Your task to perform on an android device: Go to display settings Image 0: 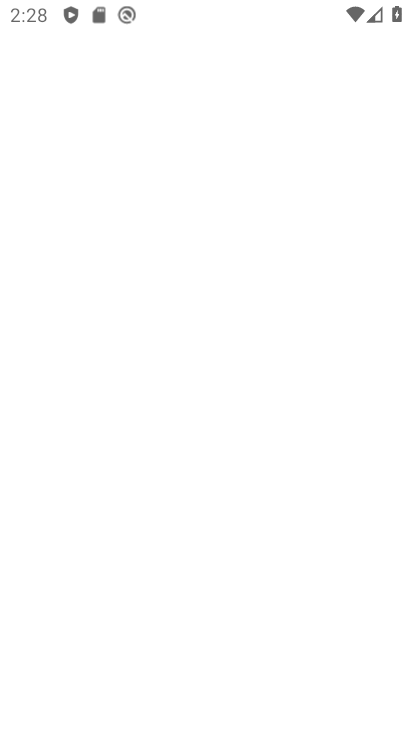
Step 0: press home button
Your task to perform on an android device: Go to display settings Image 1: 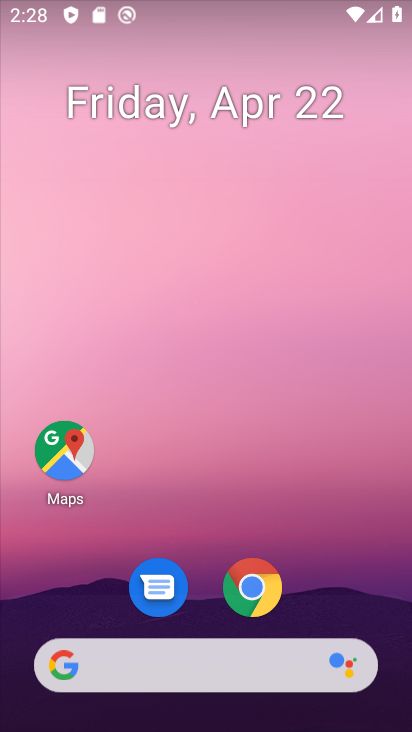
Step 1: drag from (200, 604) to (204, 143)
Your task to perform on an android device: Go to display settings Image 2: 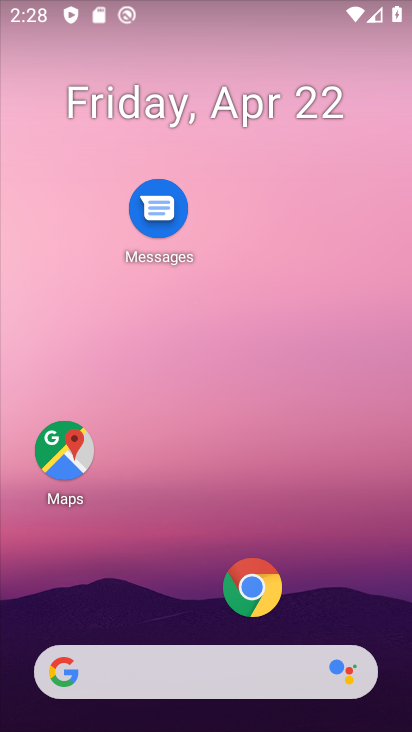
Step 2: drag from (194, 565) to (225, 166)
Your task to perform on an android device: Go to display settings Image 3: 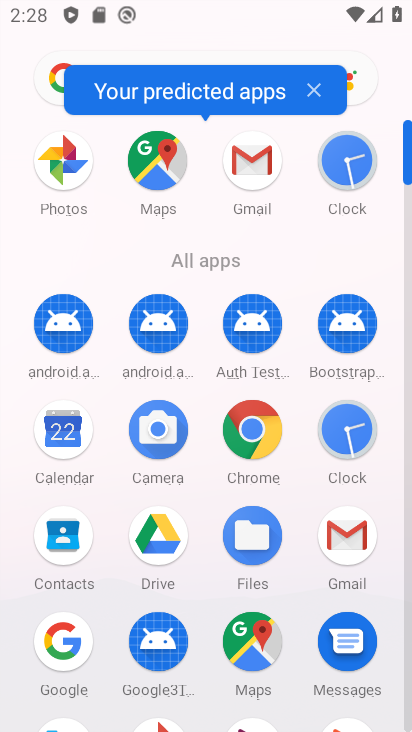
Step 3: drag from (206, 537) to (216, 218)
Your task to perform on an android device: Go to display settings Image 4: 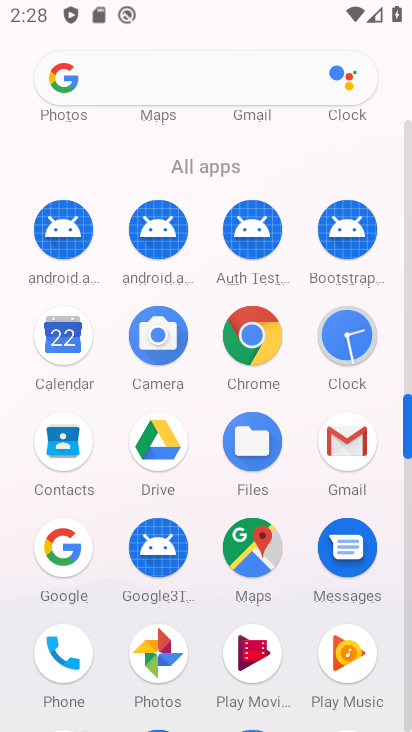
Step 4: drag from (206, 553) to (214, 183)
Your task to perform on an android device: Go to display settings Image 5: 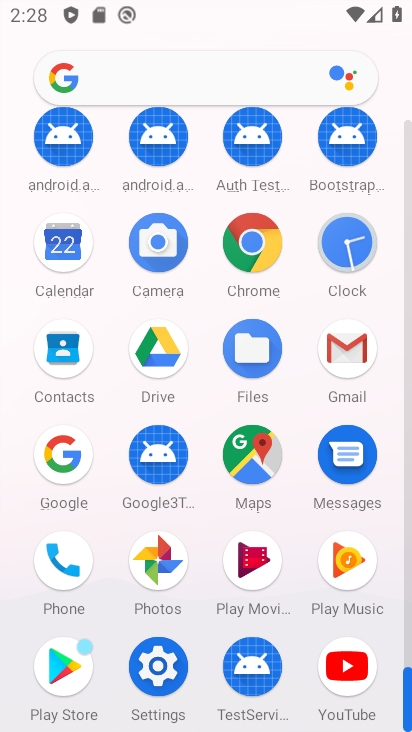
Step 5: click (174, 650)
Your task to perform on an android device: Go to display settings Image 6: 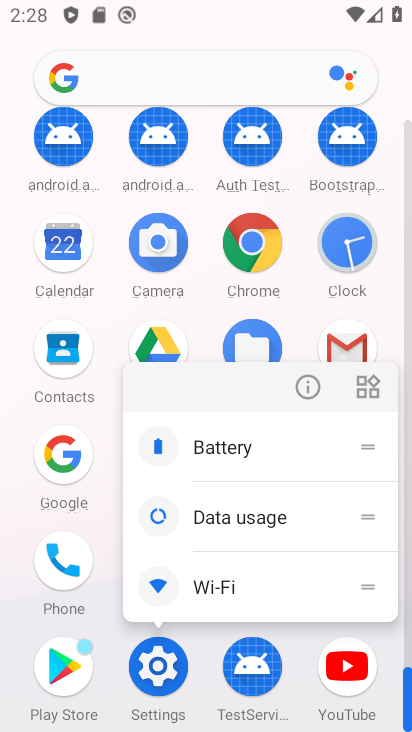
Step 6: click (169, 655)
Your task to perform on an android device: Go to display settings Image 7: 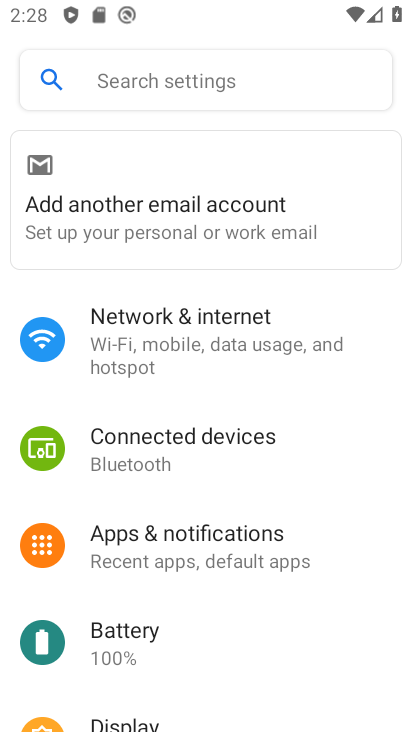
Step 7: drag from (219, 601) to (227, 287)
Your task to perform on an android device: Go to display settings Image 8: 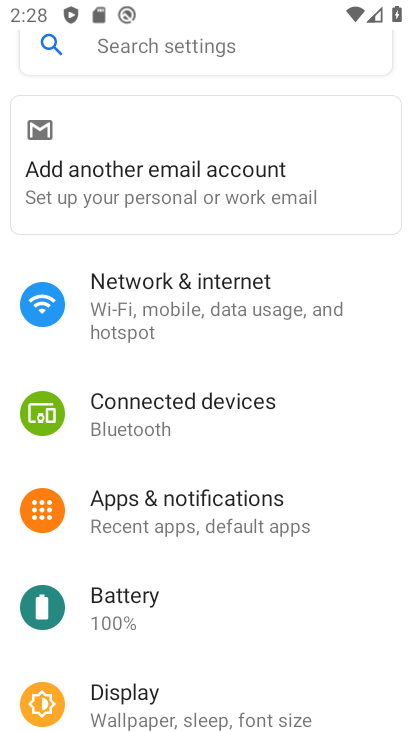
Step 8: drag from (241, 423) to (246, 277)
Your task to perform on an android device: Go to display settings Image 9: 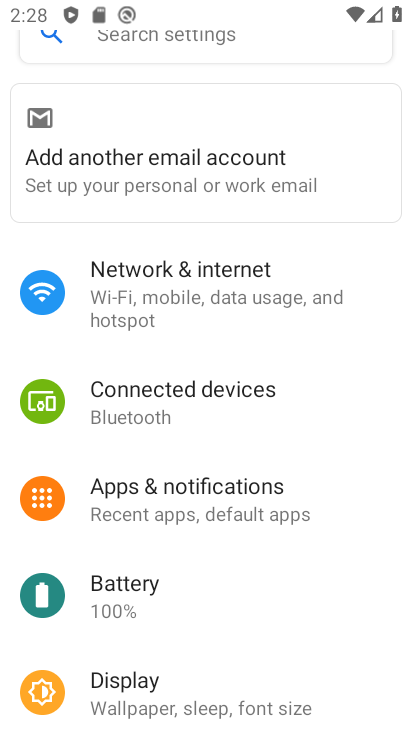
Step 9: click (171, 671)
Your task to perform on an android device: Go to display settings Image 10: 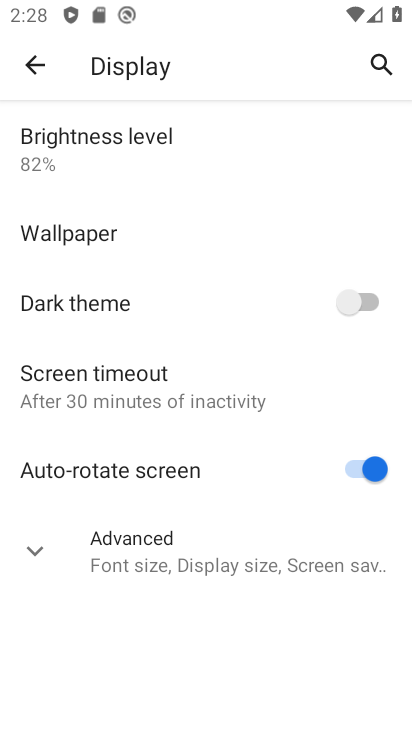
Step 10: task complete